Your task to perform on an android device: Turn off the flashlight Image 0: 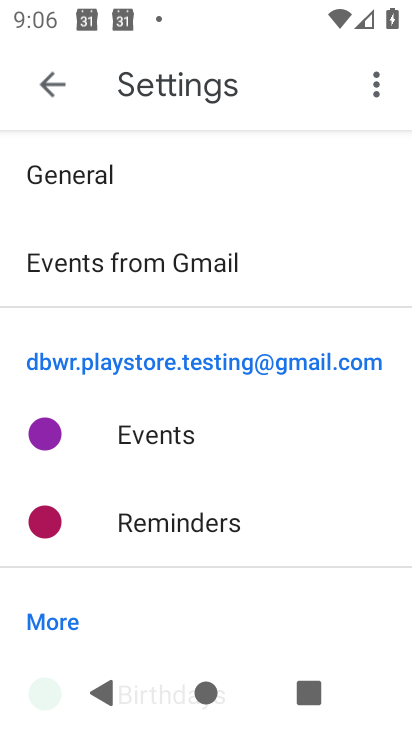
Step 0: press home button
Your task to perform on an android device: Turn off the flashlight Image 1: 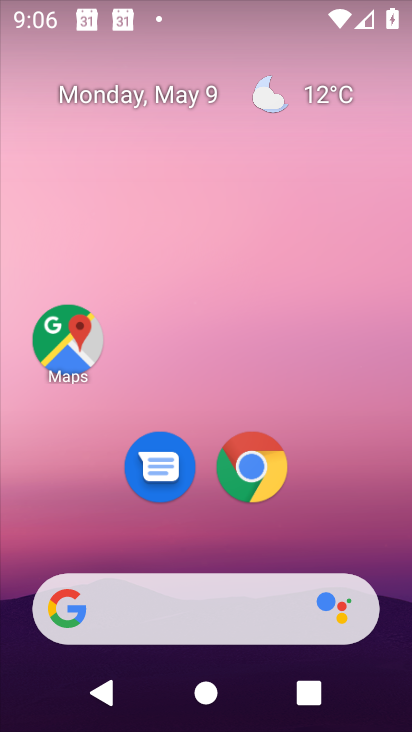
Step 1: task complete